Your task to perform on an android device: turn off smart reply in the gmail app Image 0: 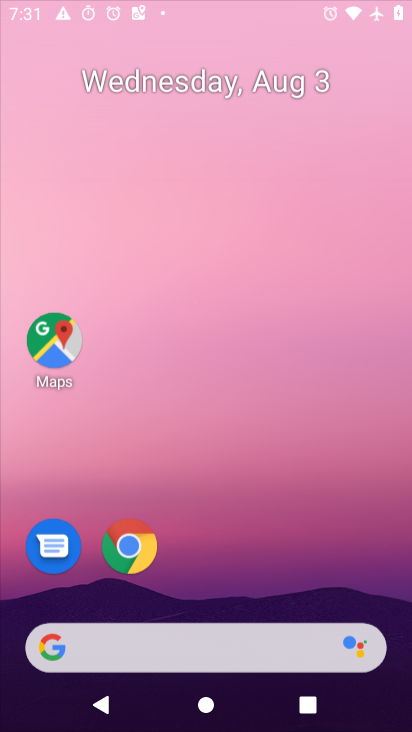
Step 0: press home button
Your task to perform on an android device: turn off smart reply in the gmail app Image 1: 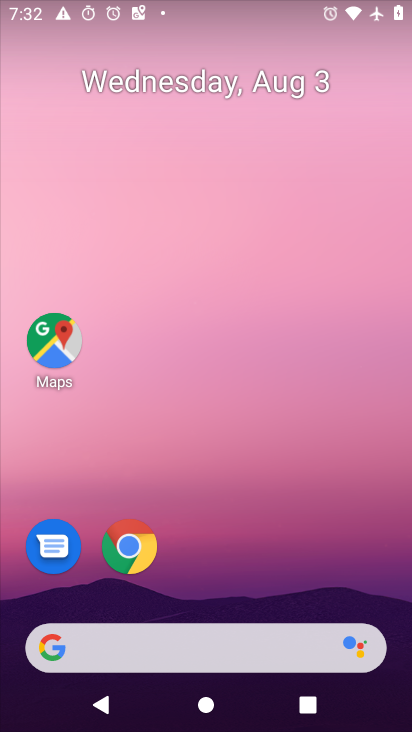
Step 1: drag from (217, 592) to (376, 1)
Your task to perform on an android device: turn off smart reply in the gmail app Image 2: 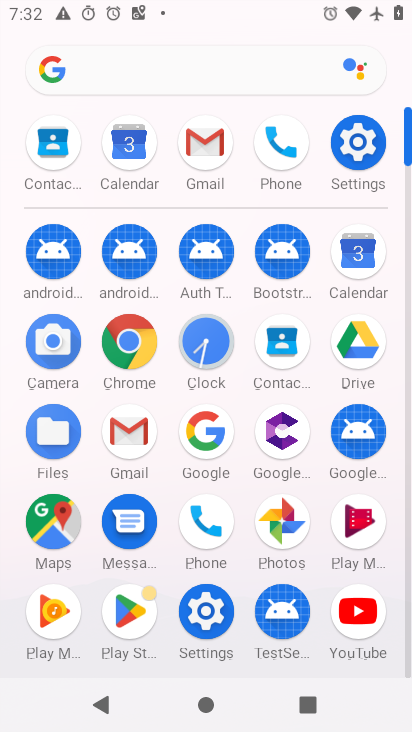
Step 2: click (208, 143)
Your task to perform on an android device: turn off smart reply in the gmail app Image 3: 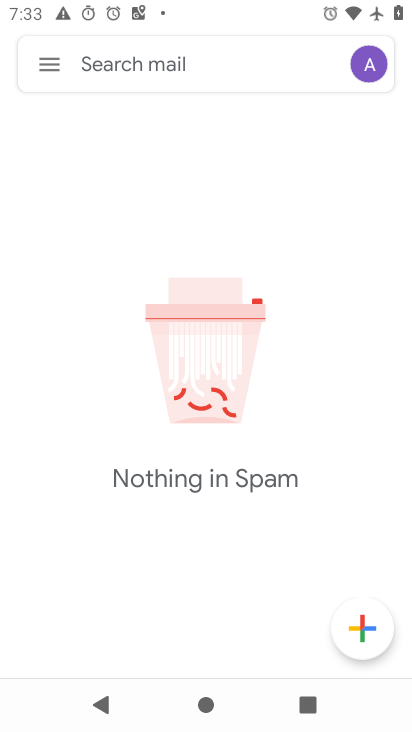
Step 3: click (42, 67)
Your task to perform on an android device: turn off smart reply in the gmail app Image 4: 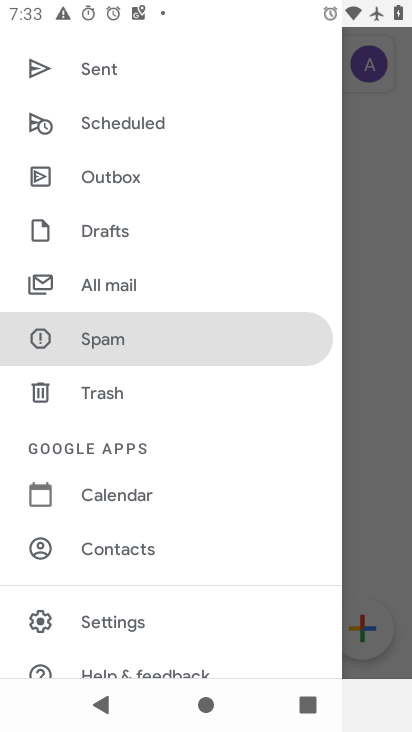
Step 4: click (125, 614)
Your task to perform on an android device: turn off smart reply in the gmail app Image 5: 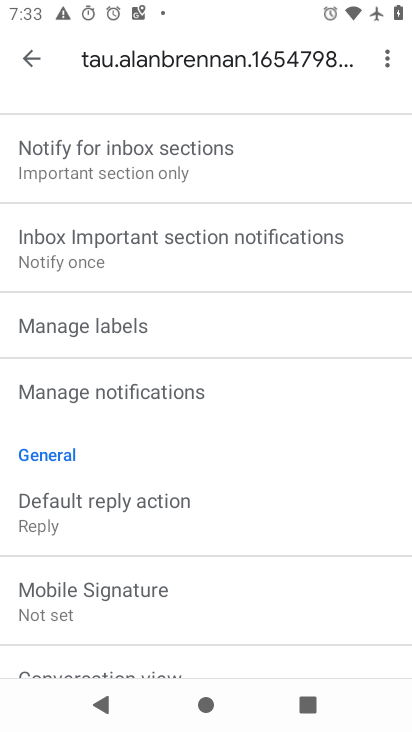
Step 5: drag from (315, 605) to (351, 23)
Your task to perform on an android device: turn off smart reply in the gmail app Image 6: 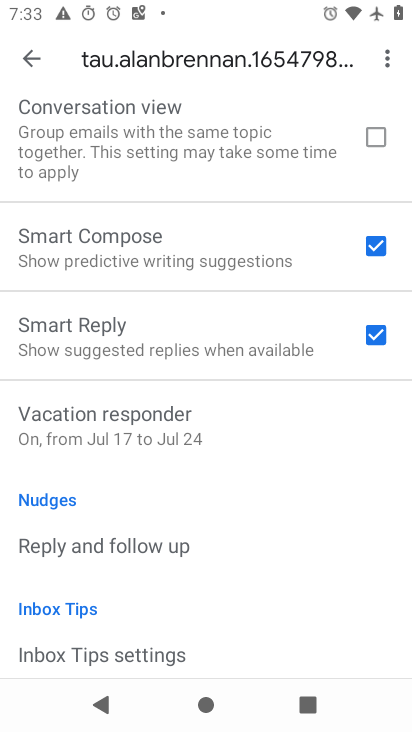
Step 6: click (373, 328)
Your task to perform on an android device: turn off smart reply in the gmail app Image 7: 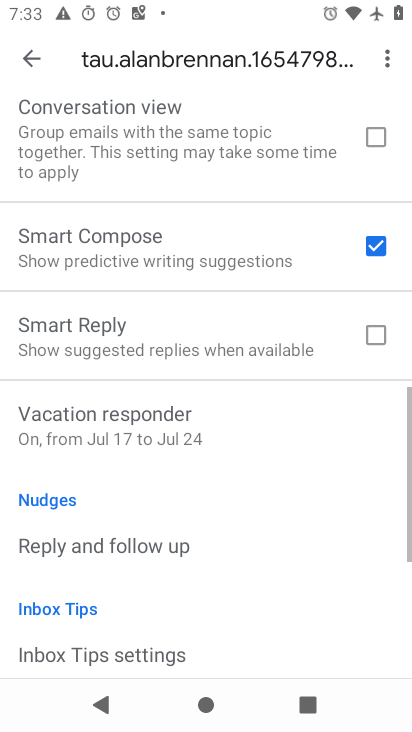
Step 7: task complete